Your task to perform on an android device: open a new tab in the chrome app Image 0: 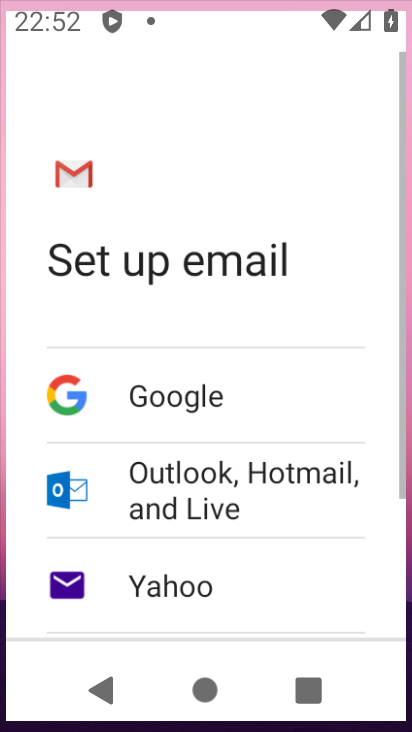
Step 0: drag from (190, 539) to (291, 0)
Your task to perform on an android device: open a new tab in the chrome app Image 1: 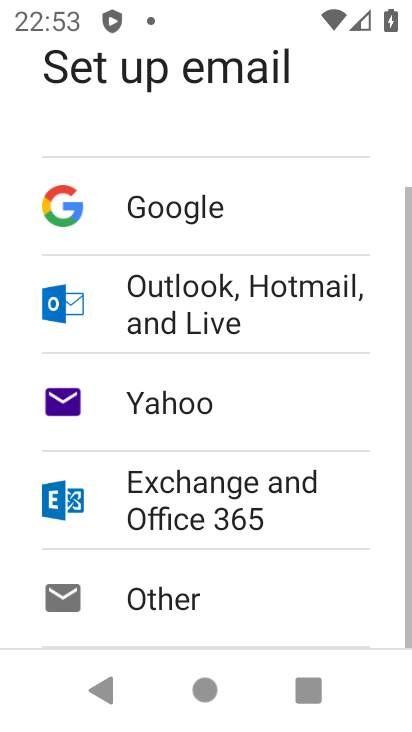
Step 1: drag from (224, 591) to (289, 210)
Your task to perform on an android device: open a new tab in the chrome app Image 2: 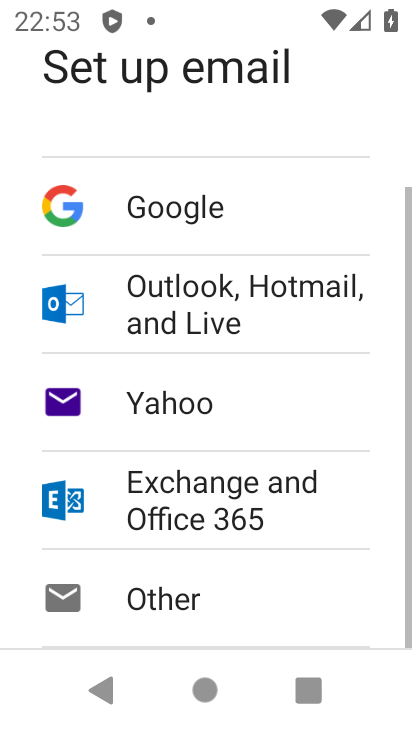
Step 2: drag from (204, 252) to (271, 674)
Your task to perform on an android device: open a new tab in the chrome app Image 3: 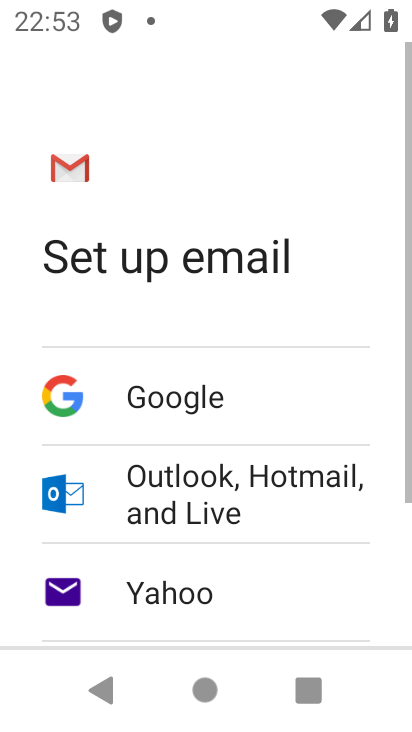
Step 3: drag from (213, 614) to (263, 124)
Your task to perform on an android device: open a new tab in the chrome app Image 4: 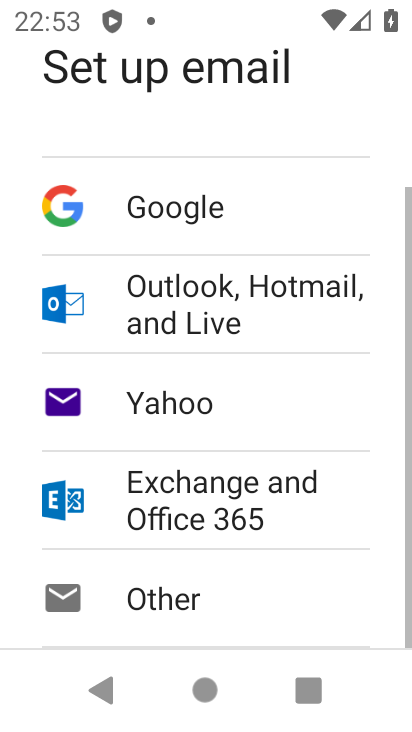
Step 4: press back button
Your task to perform on an android device: open a new tab in the chrome app Image 5: 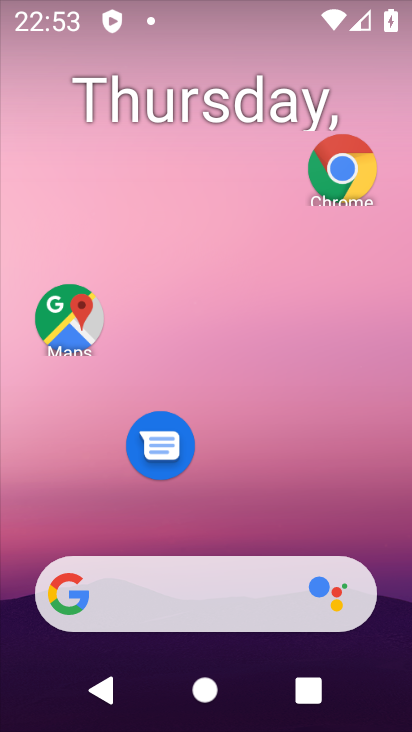
Step 5: drag from (208, 508) to (202, 55)
Your task to perform on an android device: open a new tab in the chrome app Image 6: 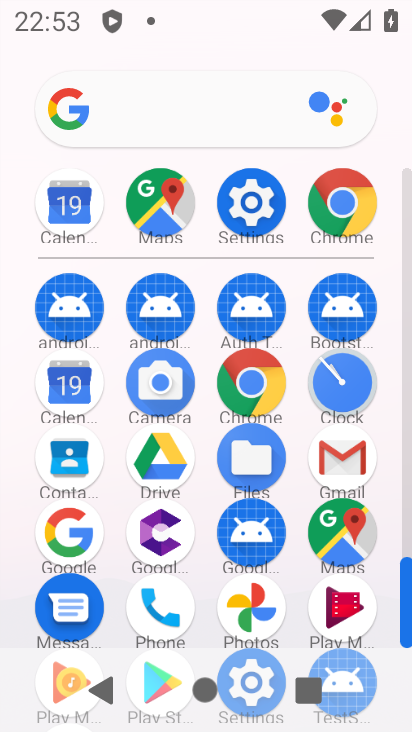
Step 6: click (259, 378)
Your task to perform on an android device: open a new tab in the chrome app Image 7: 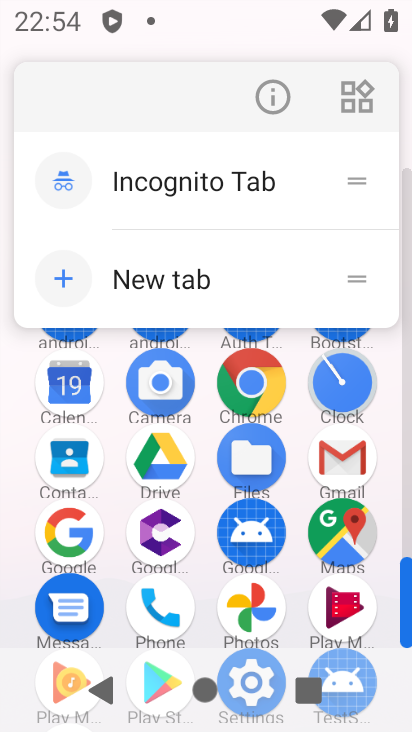
Step 7: click (274, 101)
Your task to perform on an android device: open a new tab in the chrome app Image 8: 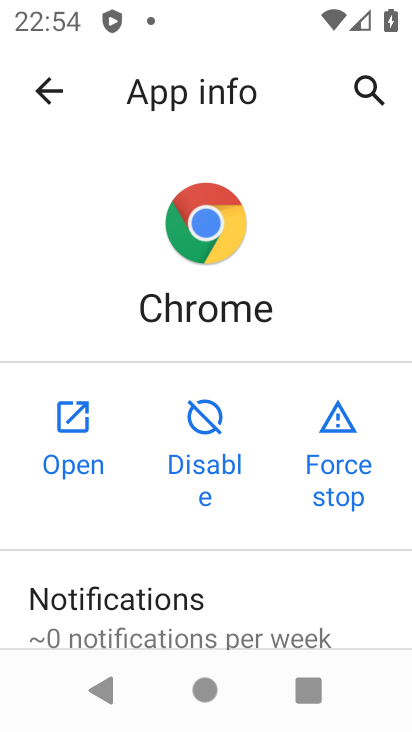
Step 8: click (70, 424)
Your task to perform on an android device: open a new tab in the chrome app Image 9: 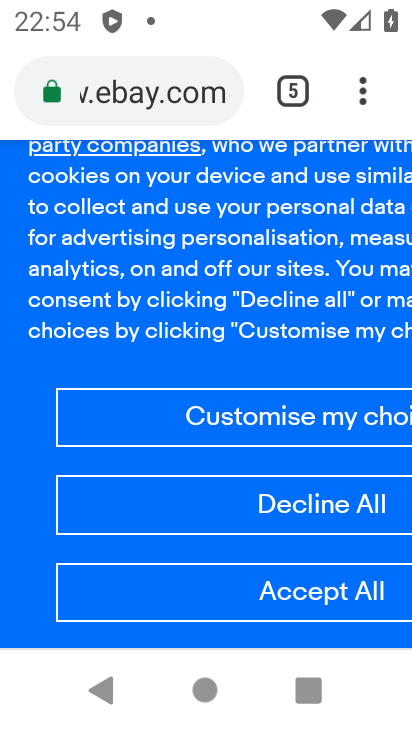
Step 9: click (280, 98)
Your task to perform on an android device: open a new tab in the chrome app Image 10: 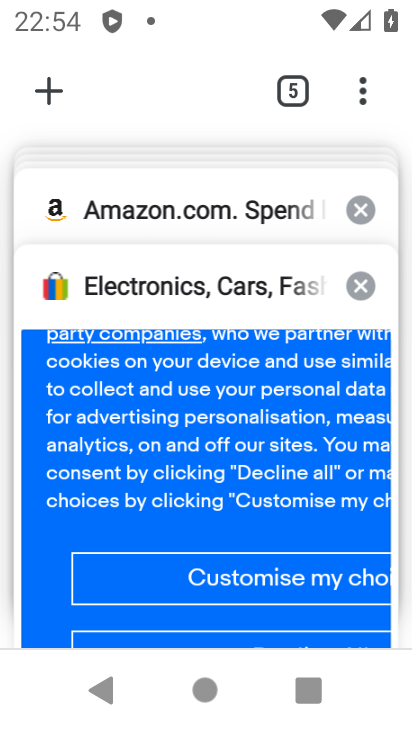
Step 10: click (39, 96)
Your task to perform on an android device: open a new tab in the chrome app Image 11: 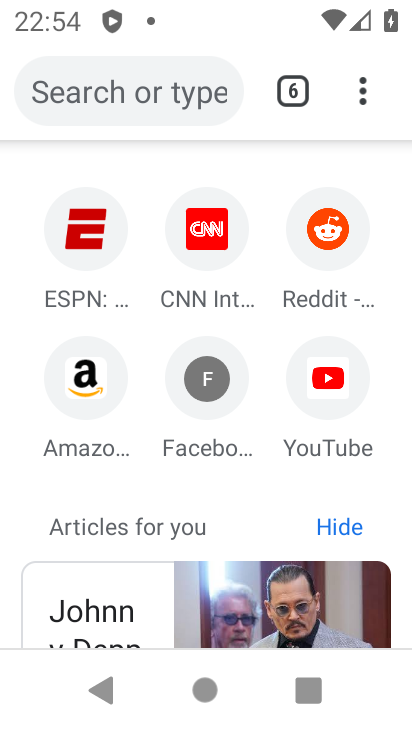
Step 11: task complete